Your task to perform on an android device: turn vacation reply on in the gmail app Image 0: 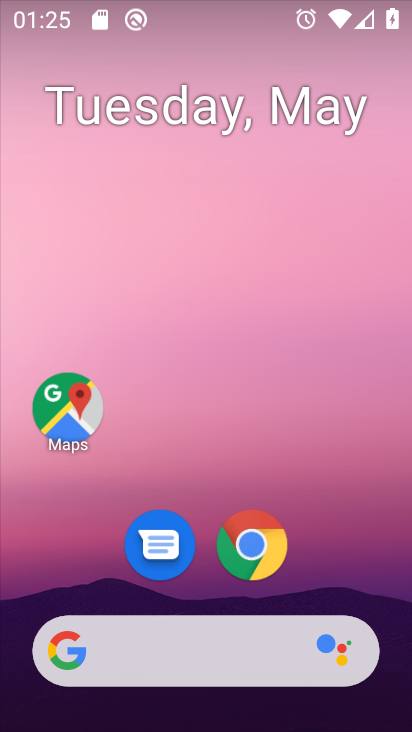
Step 0: drag from (353, 589) to (354, 60)
Your task to perform on an android device: turn vacation reply on in the gmail app Image 1: 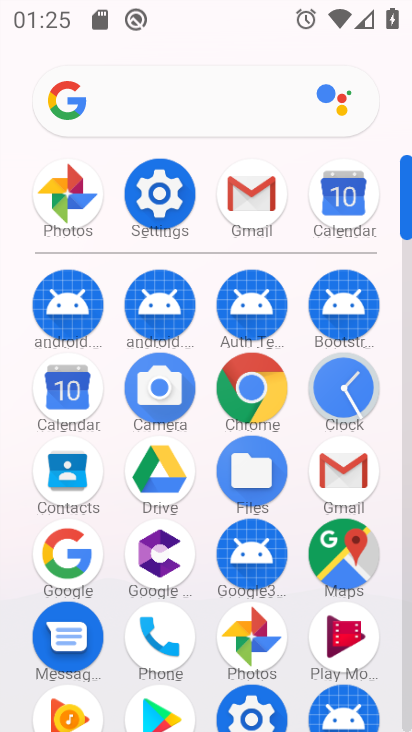
Step 1: click (350, 461)
Your task to perform on an android device: turn vacation reply on in the gmail app Image 2: 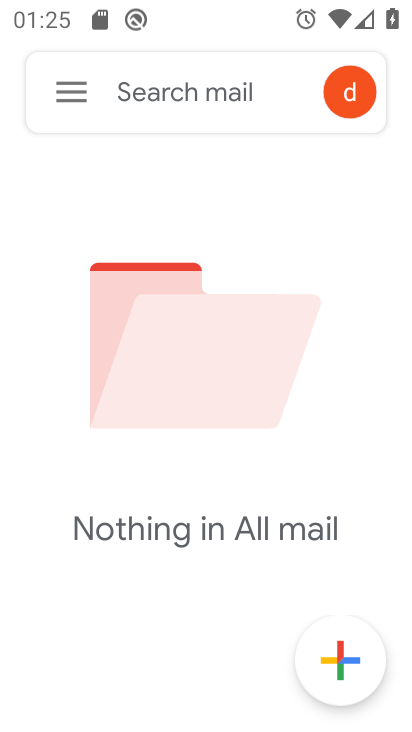
Step 2: click (77, 90)
Your task to perform on an android device: turn vacation reply on in the gmail app Image 3: 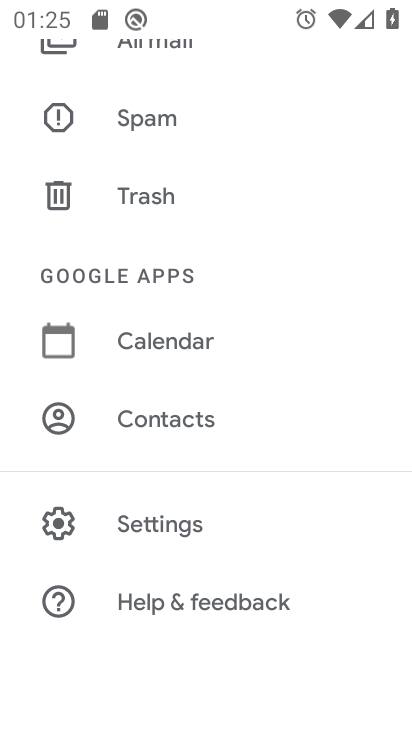
Step 3: click (134, 536)
Your task to perform on an android device: turn vacation reply on in the gmail app Image 4: 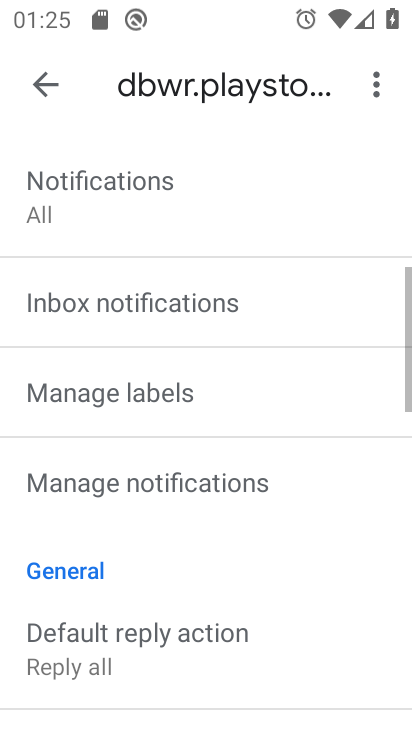
Step 4: drag from (195, 624) to (257, 415)
Your task to perform on an android device: turn vacation reply on in the gmail app Image 5: 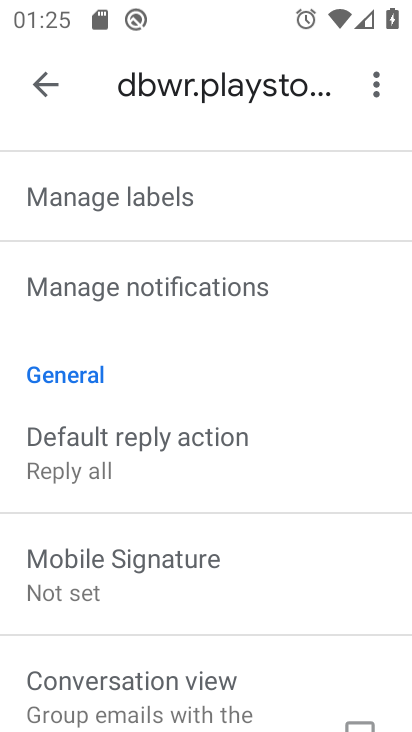
Step 5: drag from (247, 611) to (295, 440)
Your task to perform on an android device: turn vacation reply on in the gmail app Image 6: 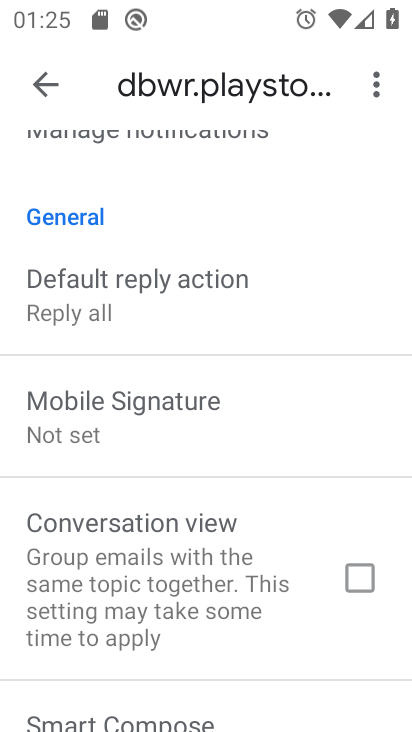
Step 6: drag from (273, 640) to (268, 495)
Your task to perform on an android device: turn vacation reply on in the gmail app Image 7: 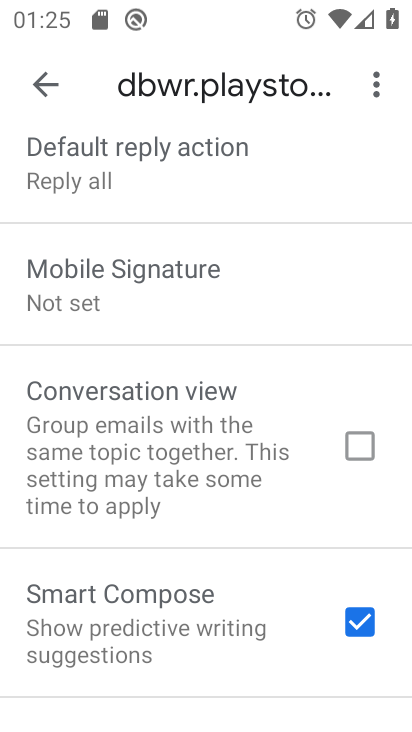
Step 7: drag from (222, 645) to (237, 497)
Your task to perform on an android device: turn vacation reply on in the gmail app Image 8: 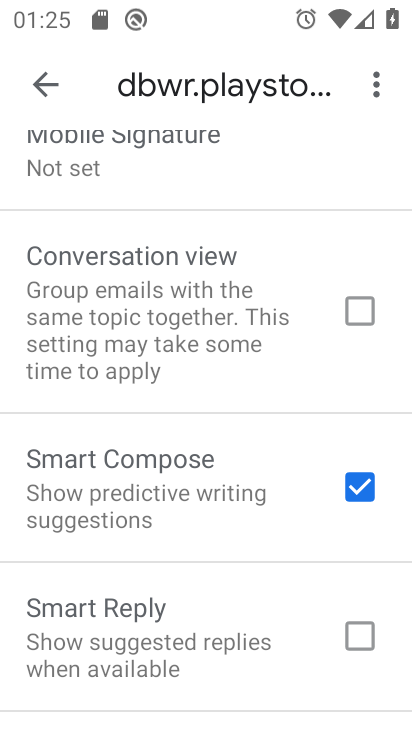
Step 8: drag from (222, 690) to (218, 559)
Your task to perform on an android device: turn vacation reply on in the gmail app Image 9: 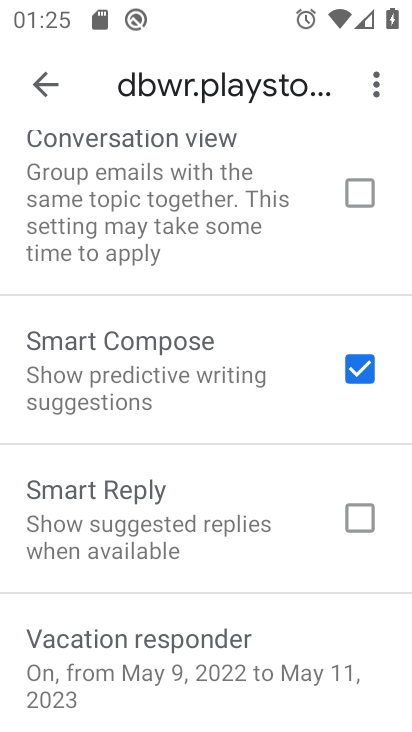
Step 9: drag from (214, 695) to (214, 581)
Your task to perform on an android device: turn vacation reply on in the gmail app Image 10: 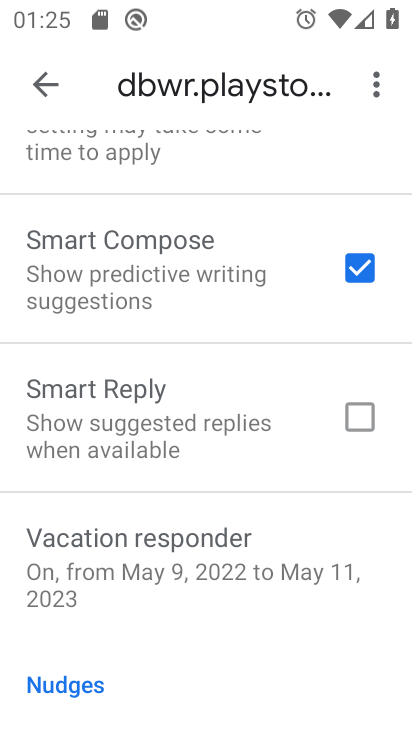
Step 10: click (202, 569)
Your task to perform on an android device: turn vacation reply on in the gmail app Image 11: 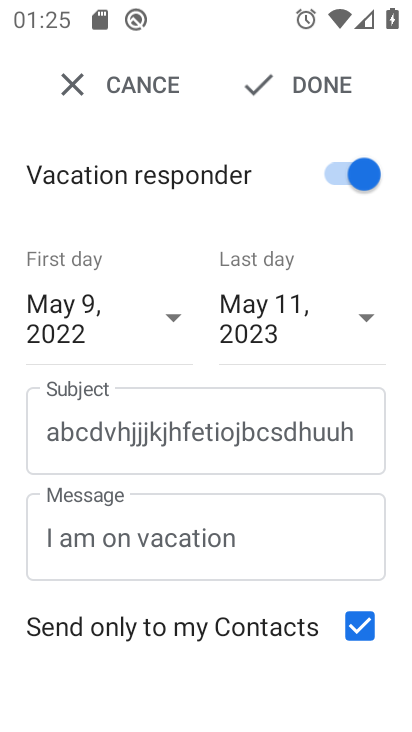
Step 11: click (292, 91)
Your task to perform on an android device: turn vacation reply on in the gmail app Image 12: 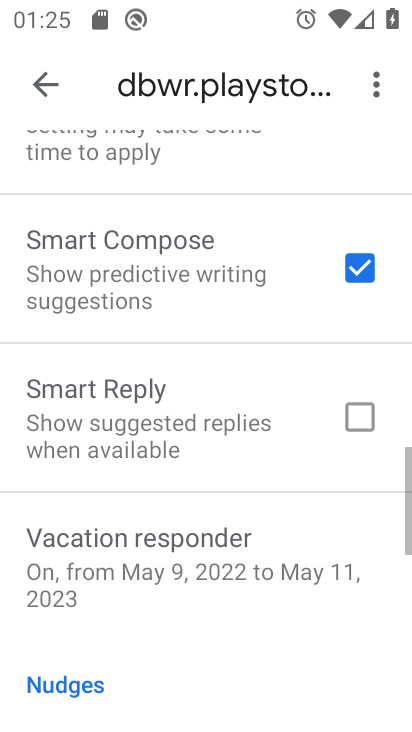
Step 12: task complete